Your task to perform on an android device: Open Android settings Image 0: 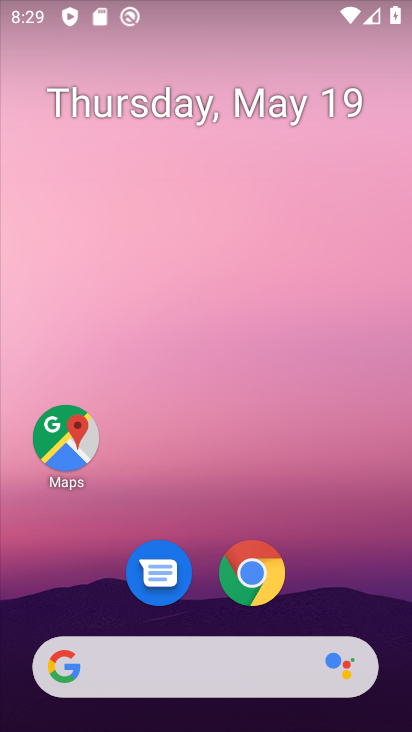
Step 0: drag from (369, 612) to (254, 9)
Your task to perform on an android device: Open Android settings Image 1: 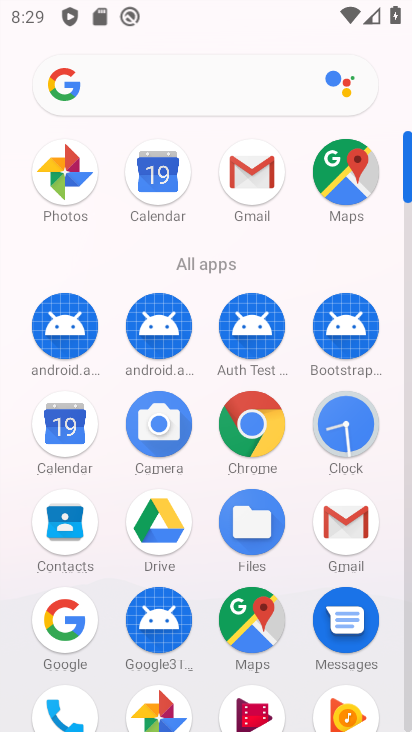
Step 1: click (407, 525)
Your task to perform on an android device: Open Android settings Image 2: 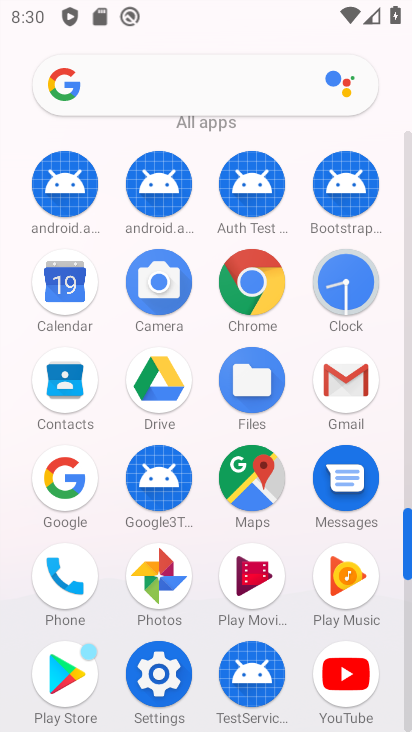
Step 2: click (156, 676)
Your task to perform on an android device: Open Android settings Image 3: 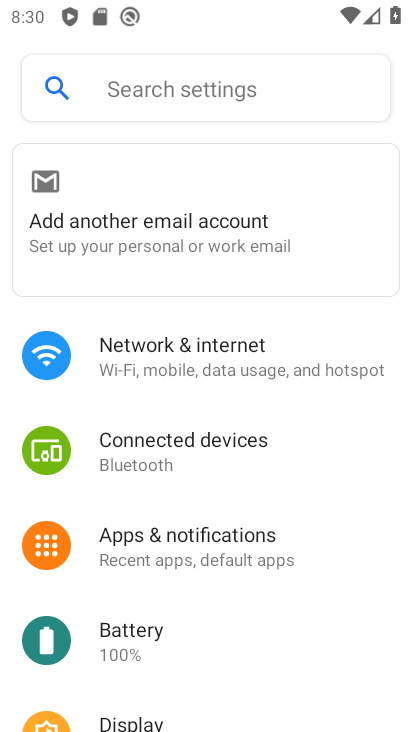
Step 3: task complete